Your task to perform on an android device: toggle data saver in the chrome app Image 0: 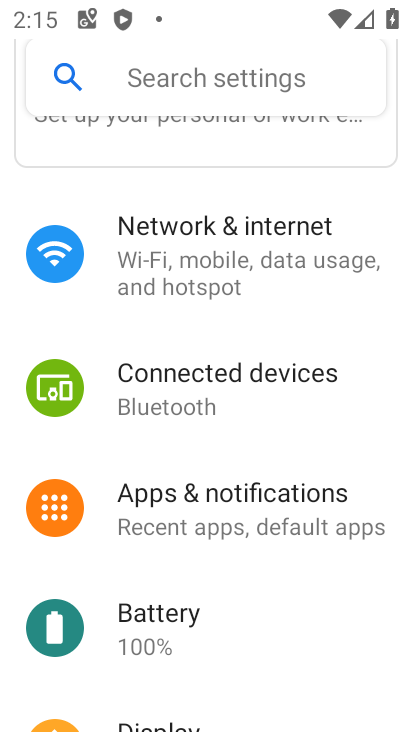
Step 0: press home button
Your task to perform on an android device: toggle data saver in the chrome app Image 1: 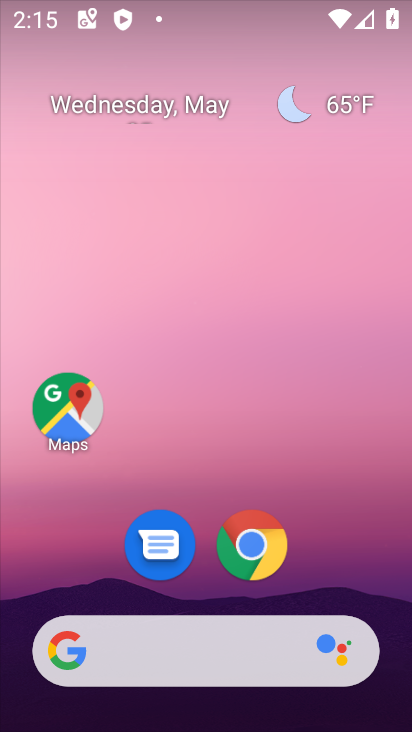
Step 1: click (263, 554)
Your task to perform on an android device: toggle data saver in the chrome app Image 2: 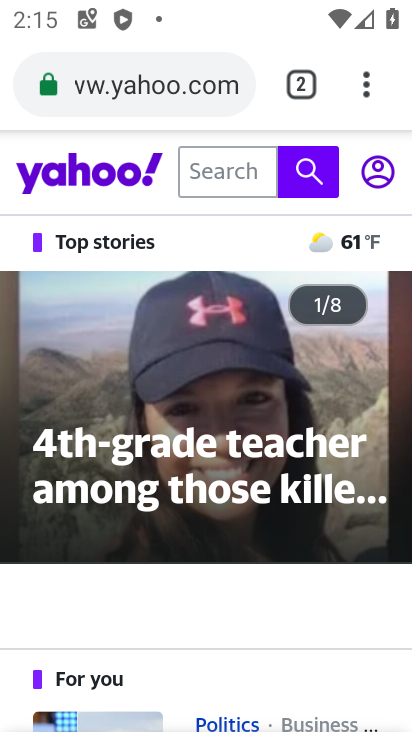
Step 2: click (364, 89)
Your task to perform on an android device: toggle data saver in the chrome app Image 3: 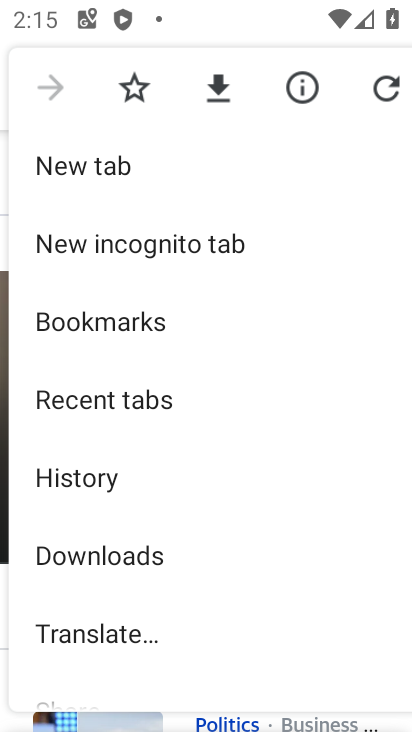
Step 3: drag from (298, 536) to (208, 23)
Your task to perform on an android device: toggle data saver in the chrome app Image 4: 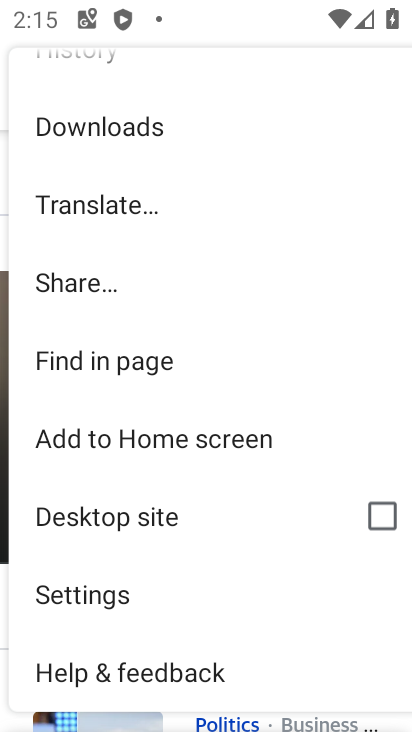
Step 4: click (195, 582)
Your task to perform on an android device: toggle data saver in the chrome app Image 5: 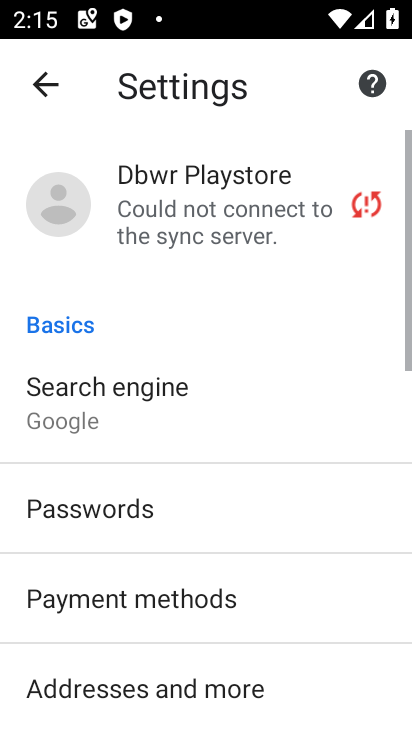
Step 5: drag from (280, 590) to (222, 90)
Your task to perform on an android device: toggle data saver in the chrome app Image 6: 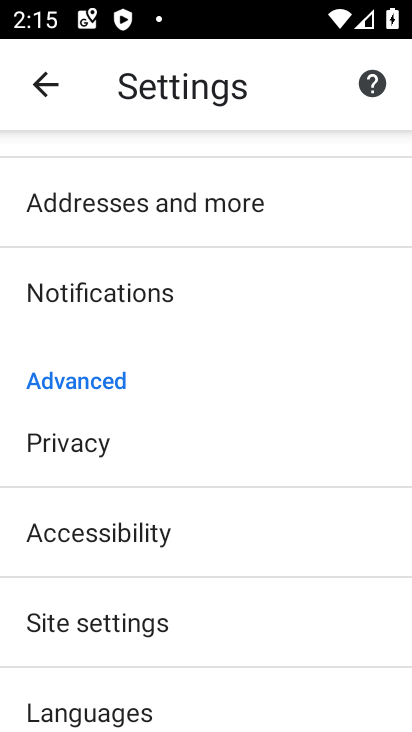
Step 6: drag from (185, 611) to (235, 227)
Your task to perform on an android device: toggle data saver in the chrome app Image 7: 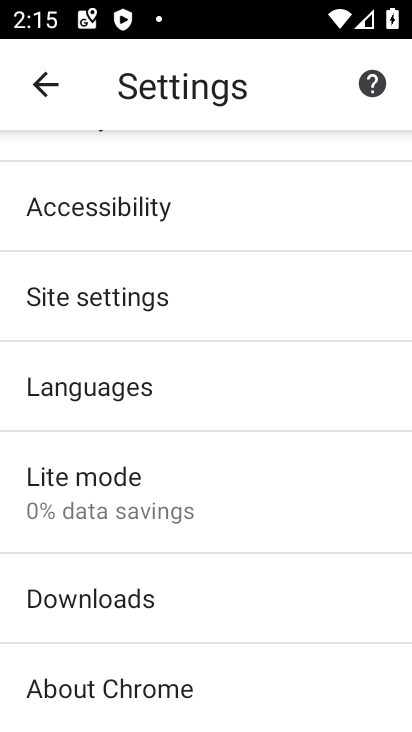
Step 7: click (173, 496)
Your task to perform on an android device: toggle data saver in the chrome app Image 8: 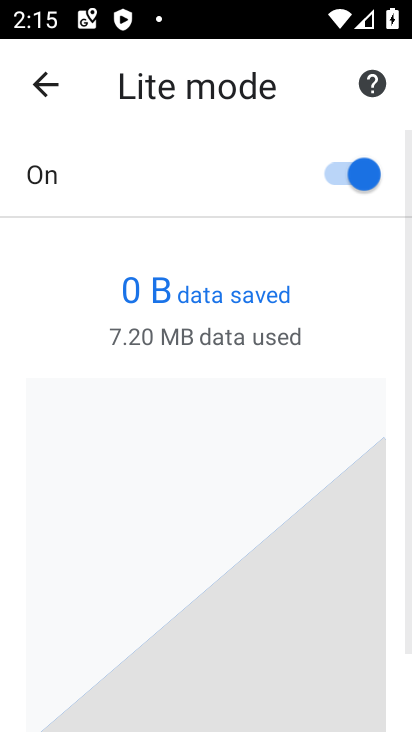
Step 8: click (348, 165)
Your task to perform on an android device: toggle data saver in the chrome app Image 9: 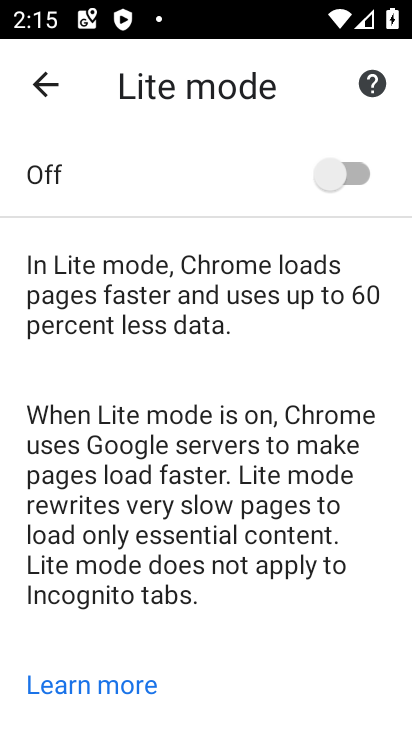
Step 9: task complete